Your task to perform on an android device: Open Amazon Image 0: 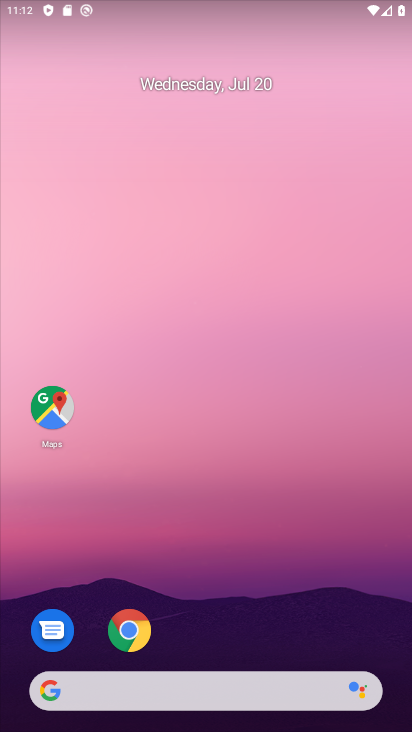
Step 0: click (134, 623)
Your task to perform on an android device: Open Amazon Image 1: 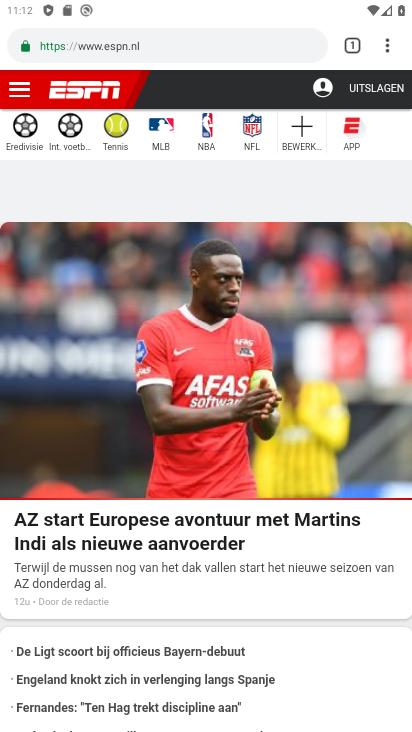
Step 1: click (347, 42)
Your task to perform on an android device: Open Amazon Image 2: 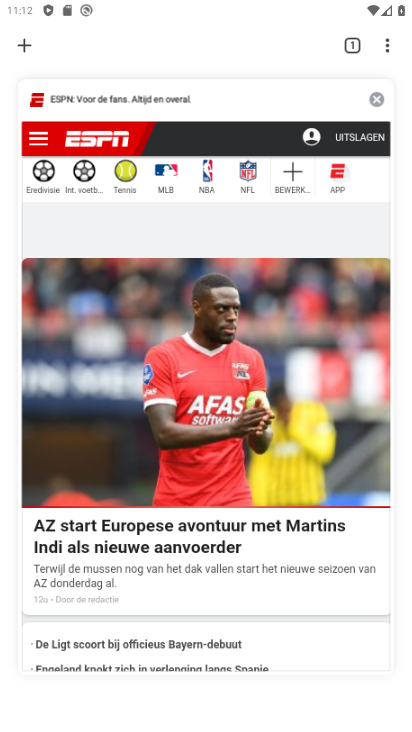
Step 2: click (29, 43)
Your task to perform on an android device: Open Amazon Image 3: 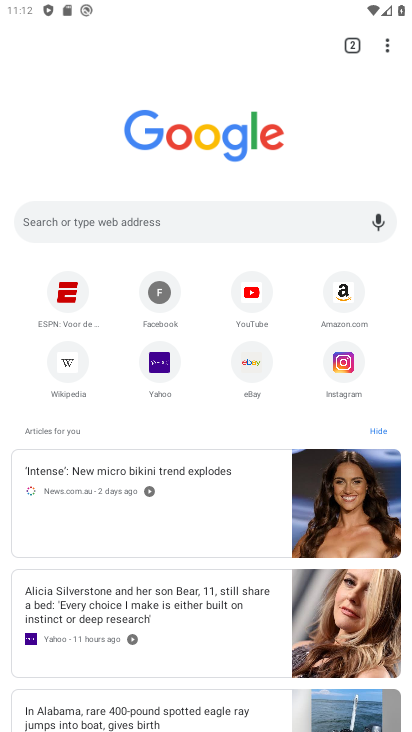
Step 3: click (337, 295)
Your task to perform on an android device: Open Amazon Image 4: 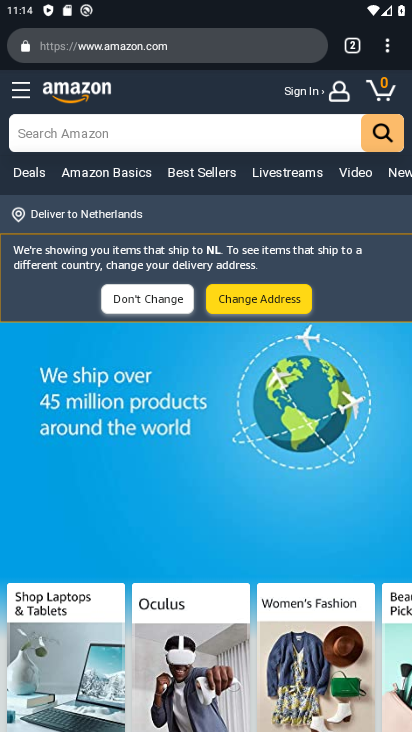
Step 4: task complete